Your task to perform on an android device: open a bookmark in the chrome app Image 0: 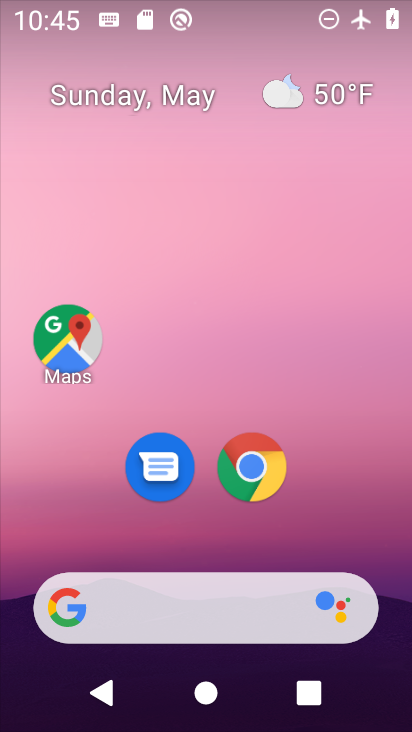
Step 0: click (241, 489)
Your task to perform on an android device: open a bookmark in the chrome app Image 1: 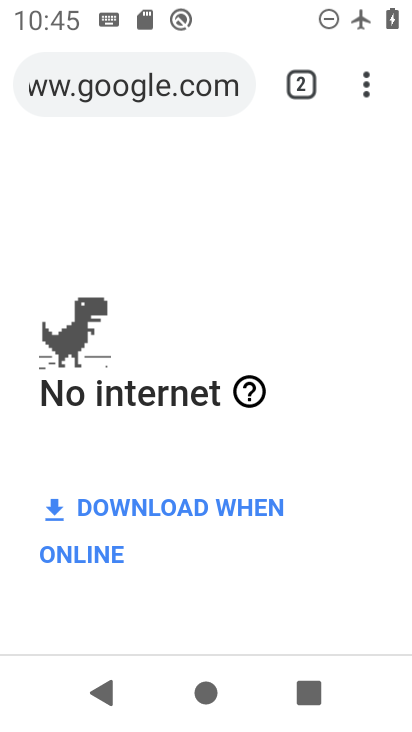
Step 1: click (365, 89)
Your task to perform on an android device: open a bookmark in the chrome app Image 2: 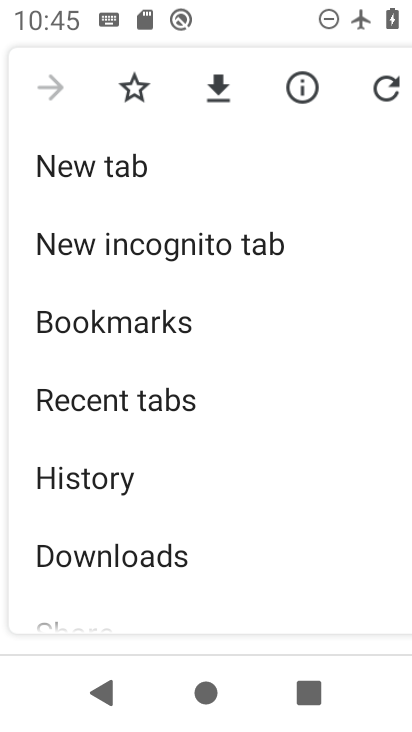
Step 2: click (103, 305)
Your task to perform on an android device: open a bookmark in the chrome app Image 3: 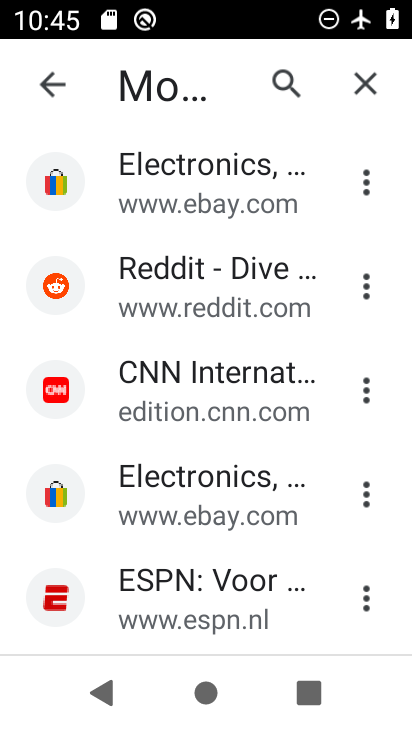
Step 3: click (214, 482)
Your task to perform on an android device: open a bookmark in the chrome app Image 4: 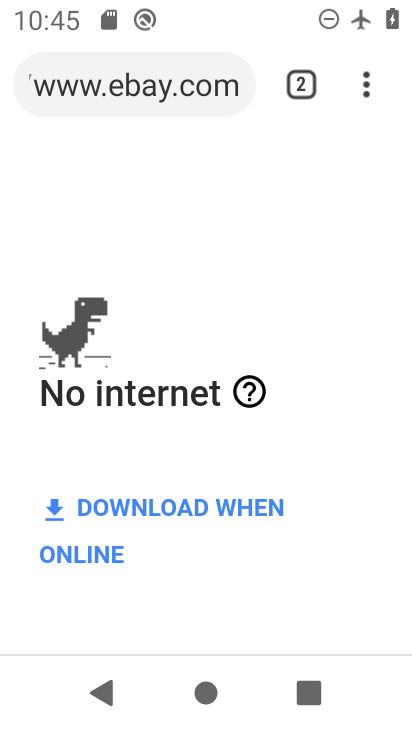
Step 4: task complete